Your task to perform on an android device: open a bookmark in the chrome app Image 0: 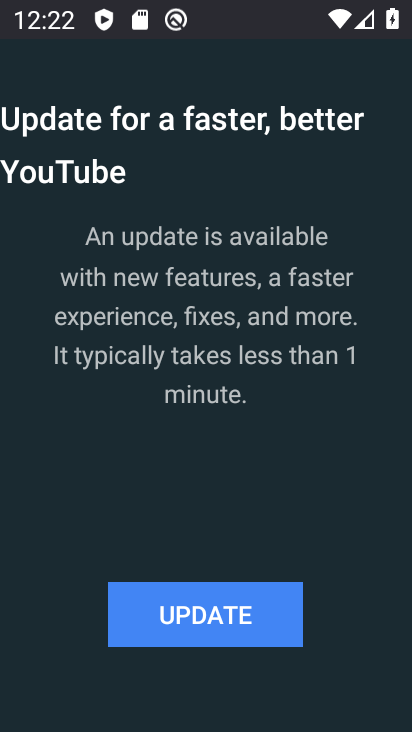
Step 0: press home button
Your task to perform on an android device: open a bookmark in the chrome app Image 1: 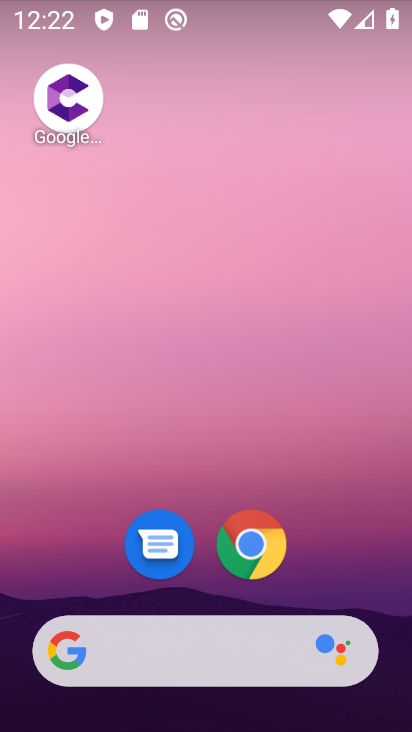
Step 1: drag from (326, 564) to (354, 157)
Your task to perform on an android device: open a bookmark in the chrome app Image 2: 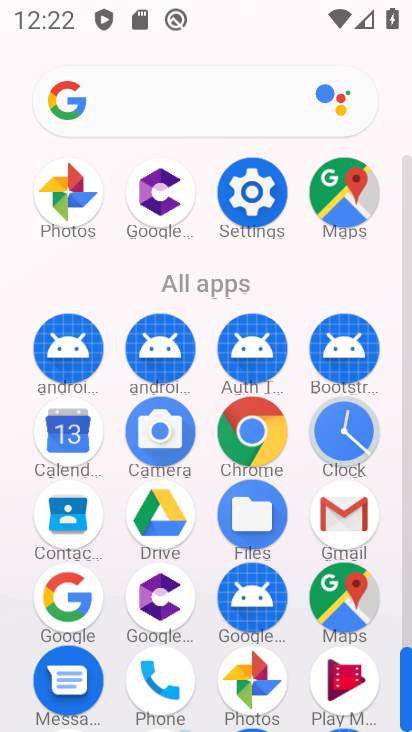
Step 2: click (249, 441)
Your task to perform on an android device: open a bookmark in the chrome app Image 3: 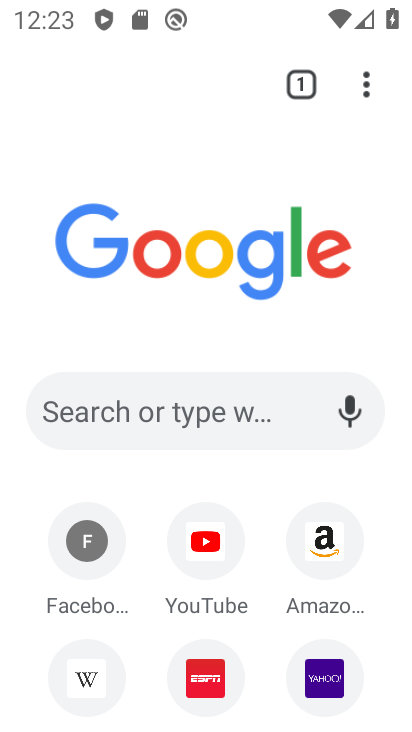
Step 3: task complete